Your task to perform on an android device: set an alarm Image 0: 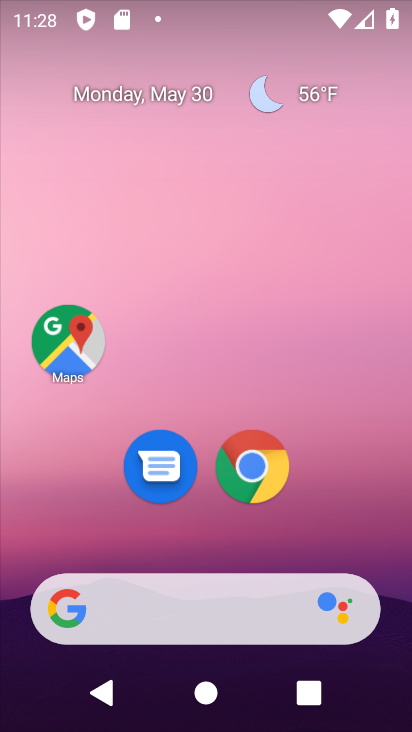
Step 0: drag from (216, 589) to (161, 73)
Your task to perform on an android device: set an alarm Image 1: 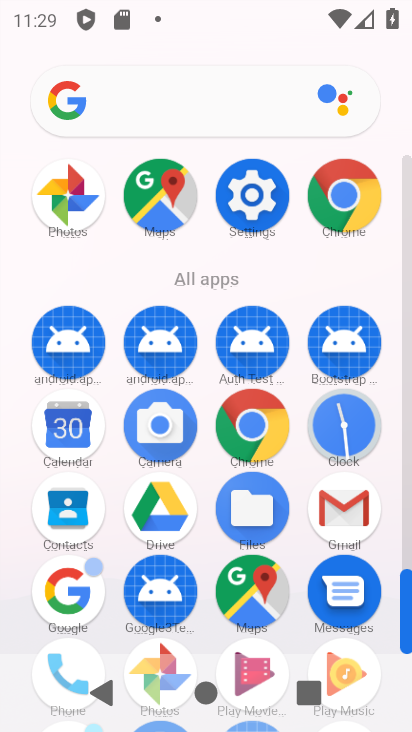
Step 1: click (337, 437)
Your task to perform on an android device: set an alarm Image 2: 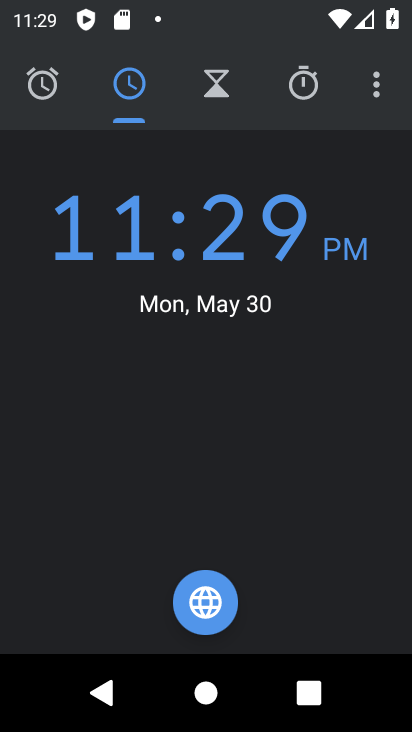
Step 2: click (44, 84)
Your task to perform on an android device: set an alarm Image 3: 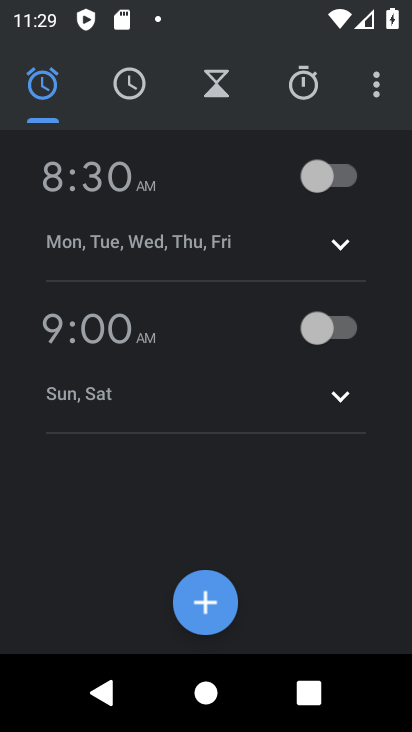
Step 3: click (204, 591)
Your task to perform on an android device: set an alarm Image 4: 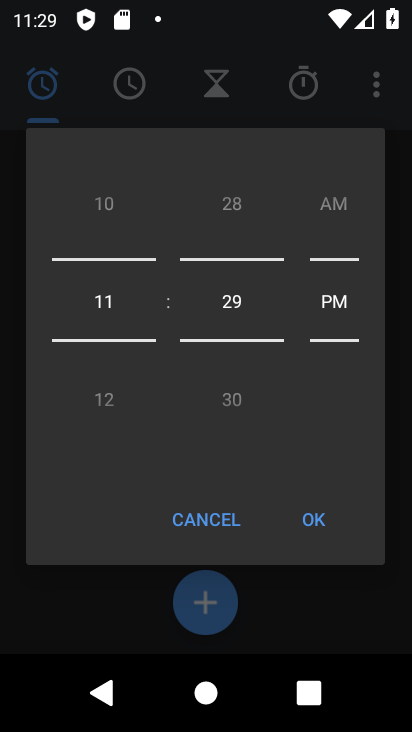
Step 4: drag from (103, 369) to (79, 15)
Your task to perform on an android device: set an alarm Image 5: 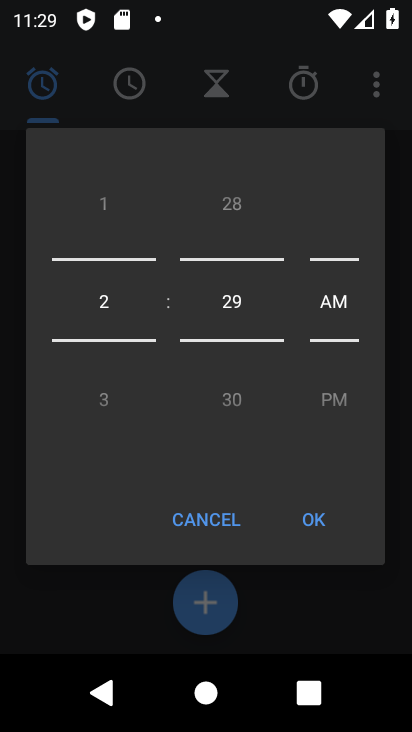
Step 5: click (309, 533)
Your task to perform on an android device: set an alarm Image 6: 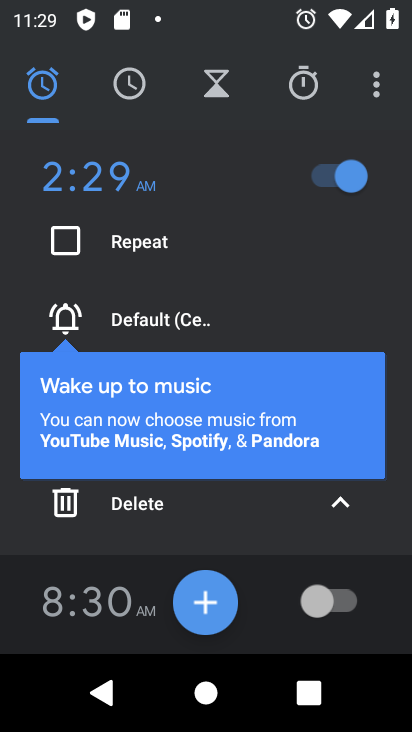
Step 6: task complete